Your task to perform on an android device: Add macbook pro 13 inch to the cart on costco.com Image 0: 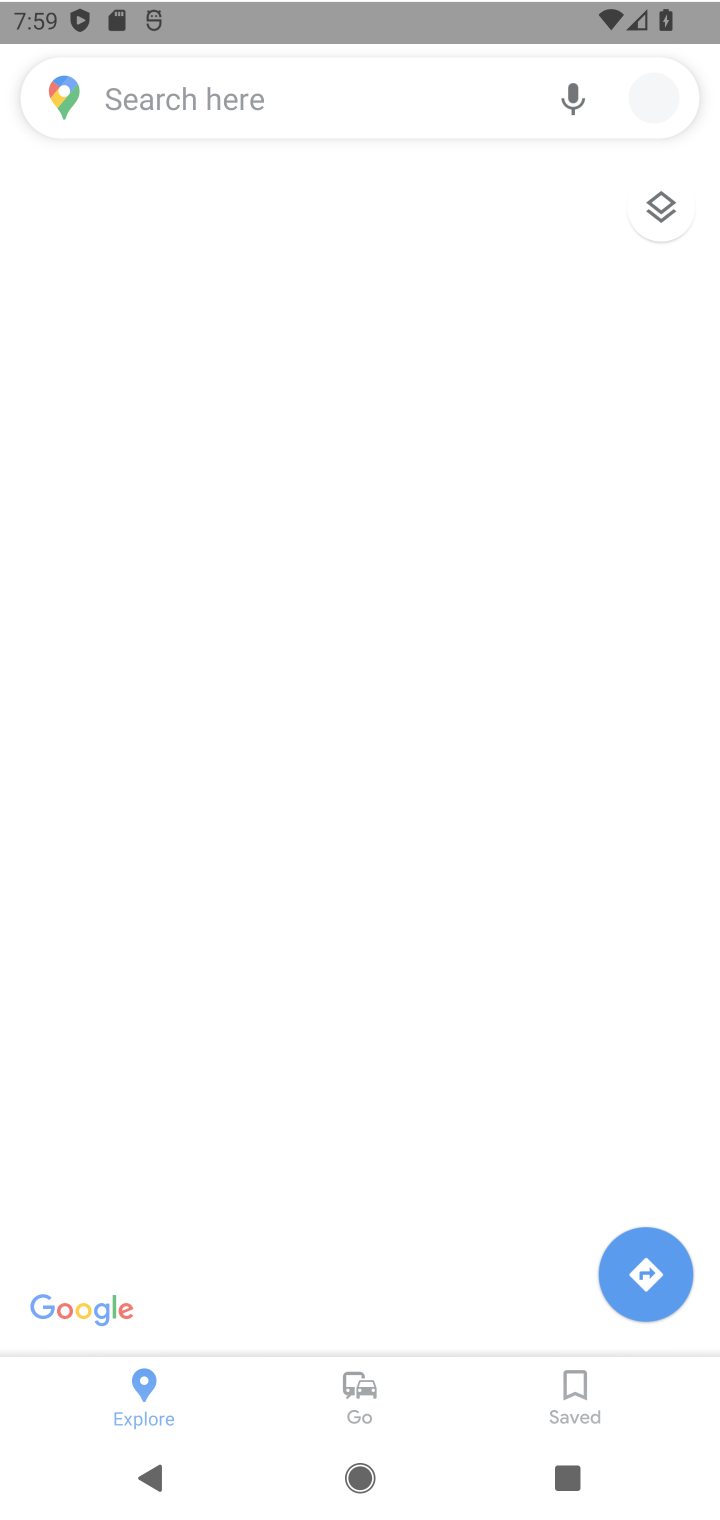
Step 0: press home button
Your task to perform on an android device: Add macbook pro 13 inch to the cart on costco.com Image 1: 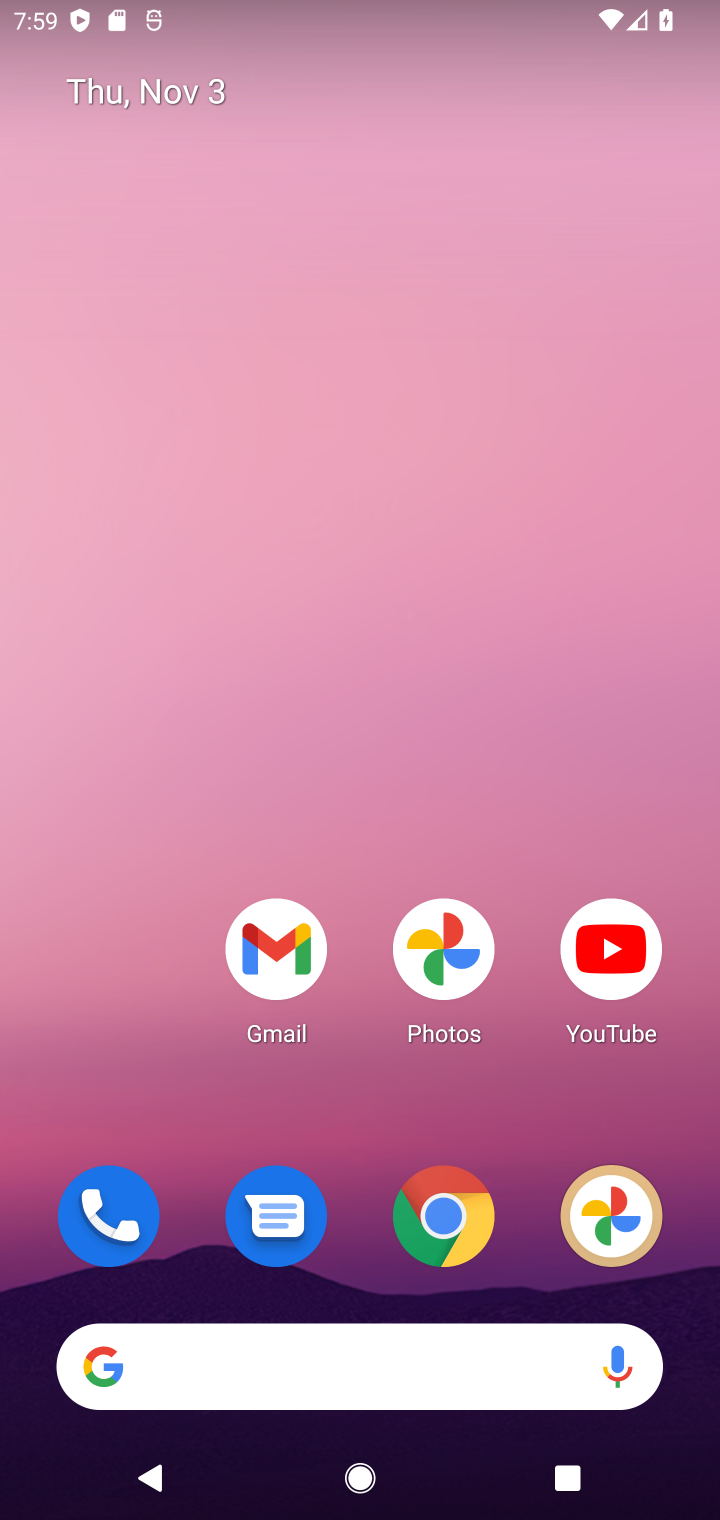
Step 1: click (445, 1234)
Your task to perform on an android device: Add macbook pro 13 inch to the cart on costco.com Image 2: 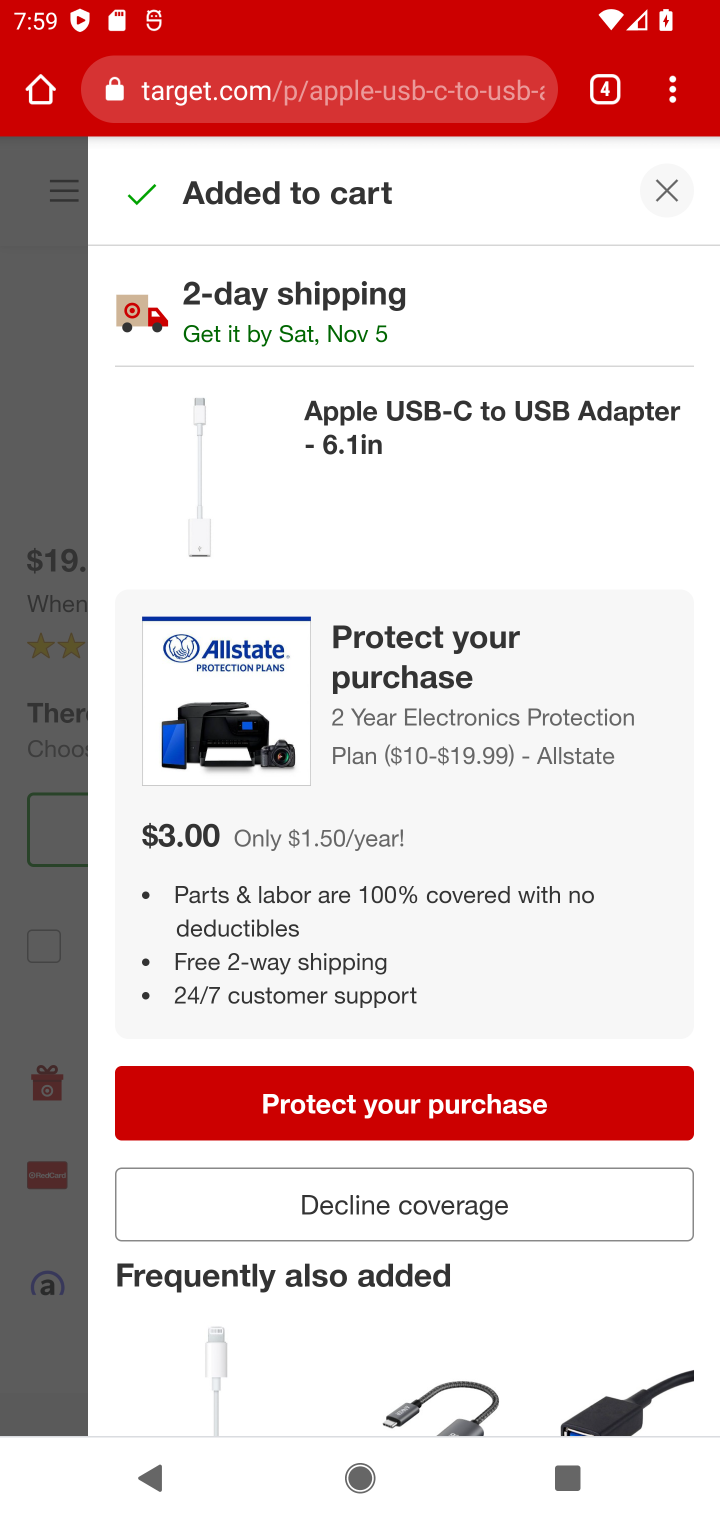
Step 2: click (602, 85)
Your task to perform on an android device: Add macbook pro 13 inch to the cart on costco.com Image 3: 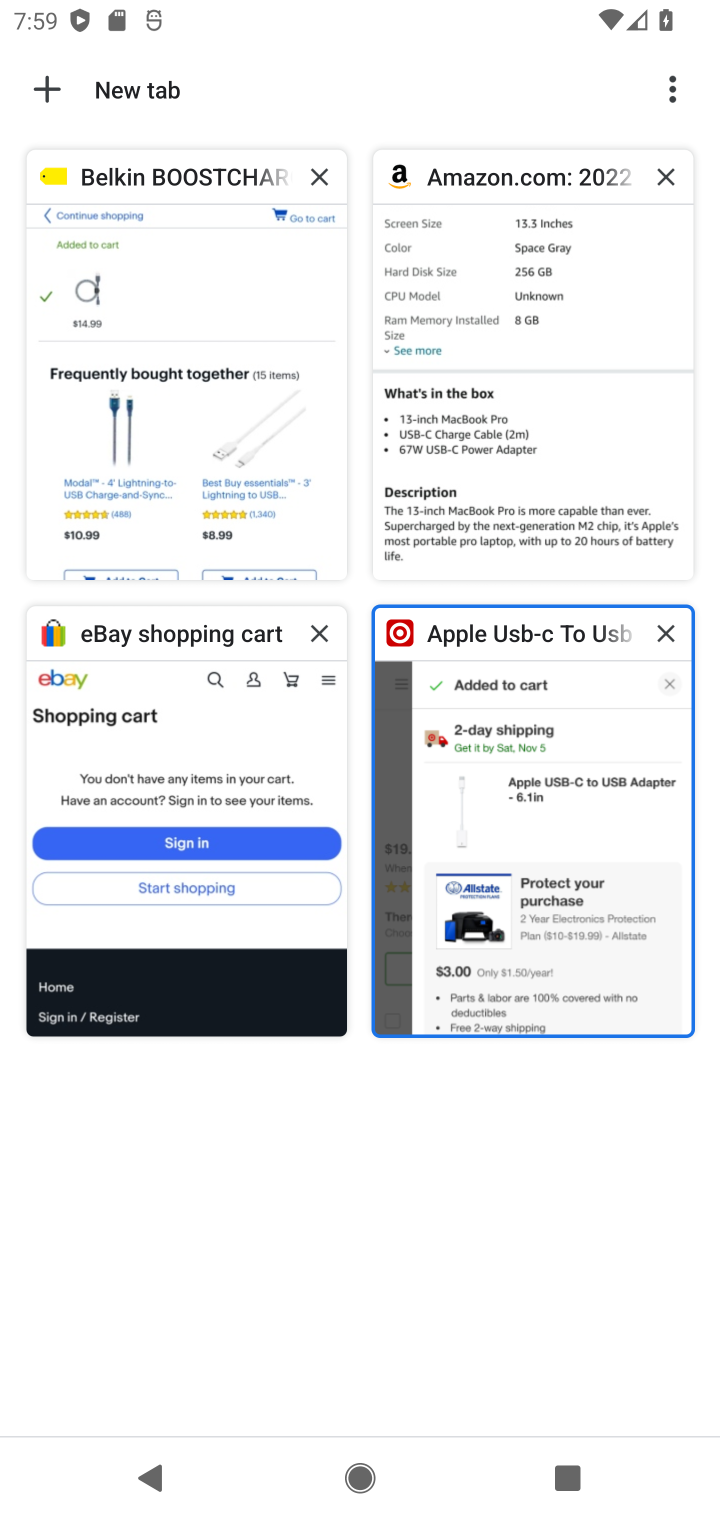
Step 3: click (46, 93)
Your task to perform on an android device: Add macbook pro 13 inch to the cart on costco.com Image 4: 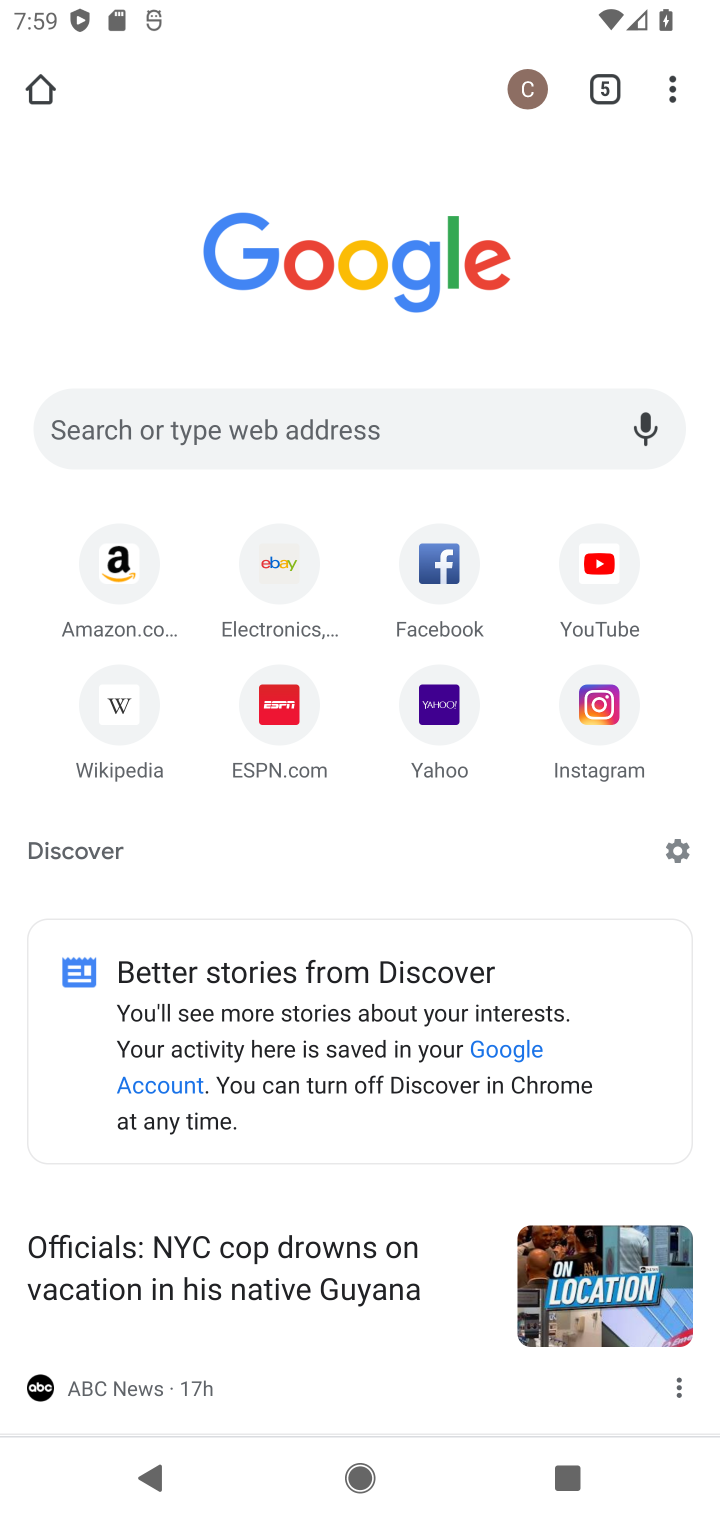
Step 4: click (186, 410)
Your task to perform on an android device: Add macbook pro 13 inch to the cart on costco.com Image 5: 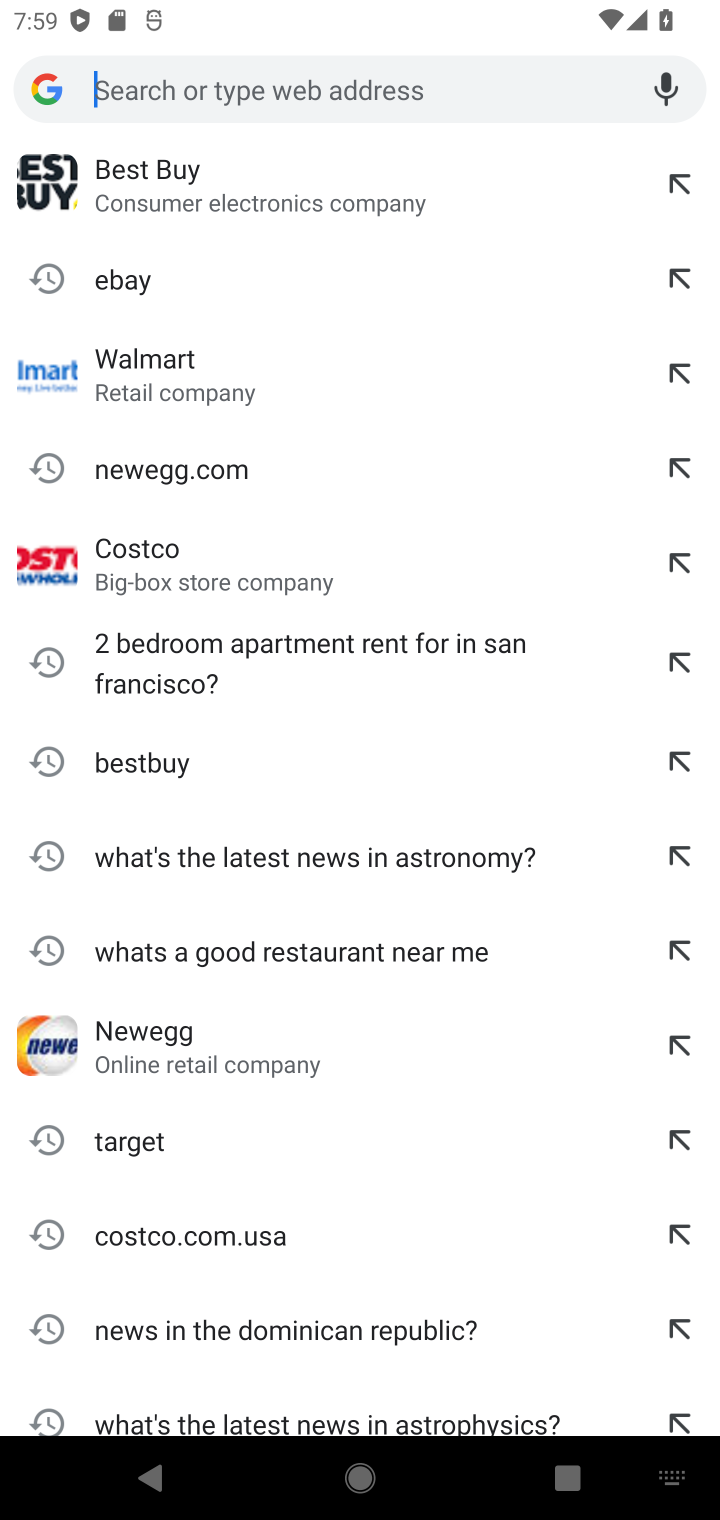
Step 5: type "costco.com"
Your task to perform on an android device: Add macbook pro 13 inch to the cart on costco.com Image 6: 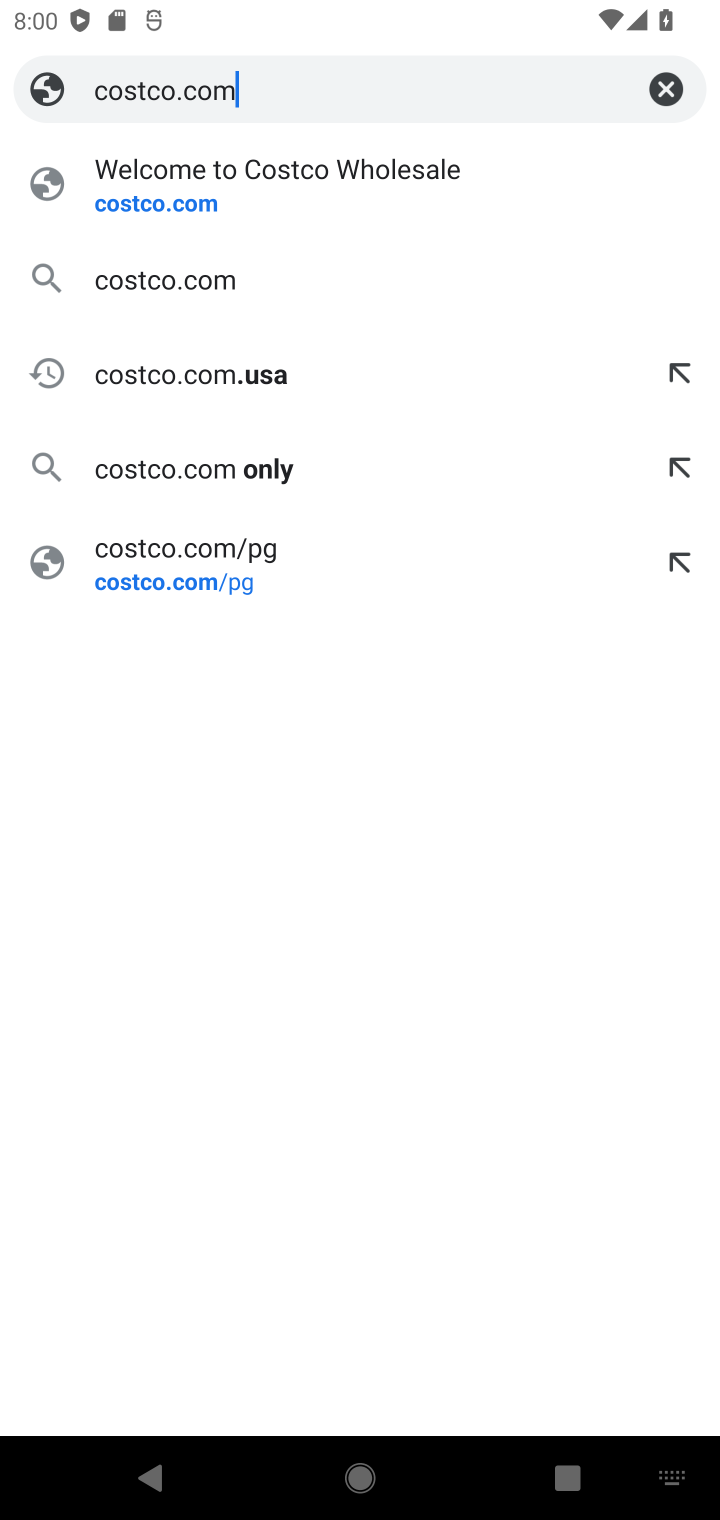
Step 6: click (156, 210)
Your task to perform on an android device: Add macbook pro 13 inch to the cart on costco.com Image 7: 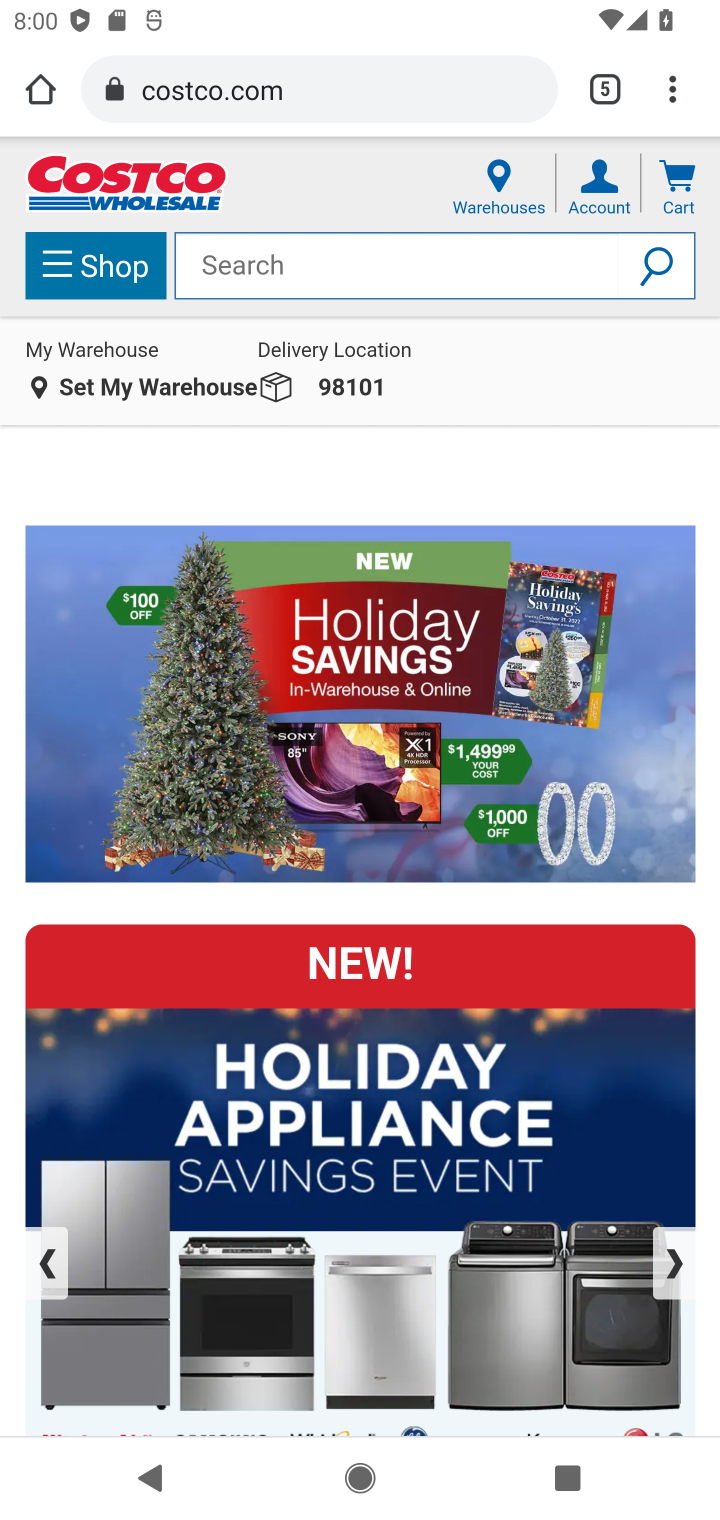
Step 7: click (336, 266)
Your task to perform on an android device: Add macbook pro 13 inch to the cart on costco.com Image 8: 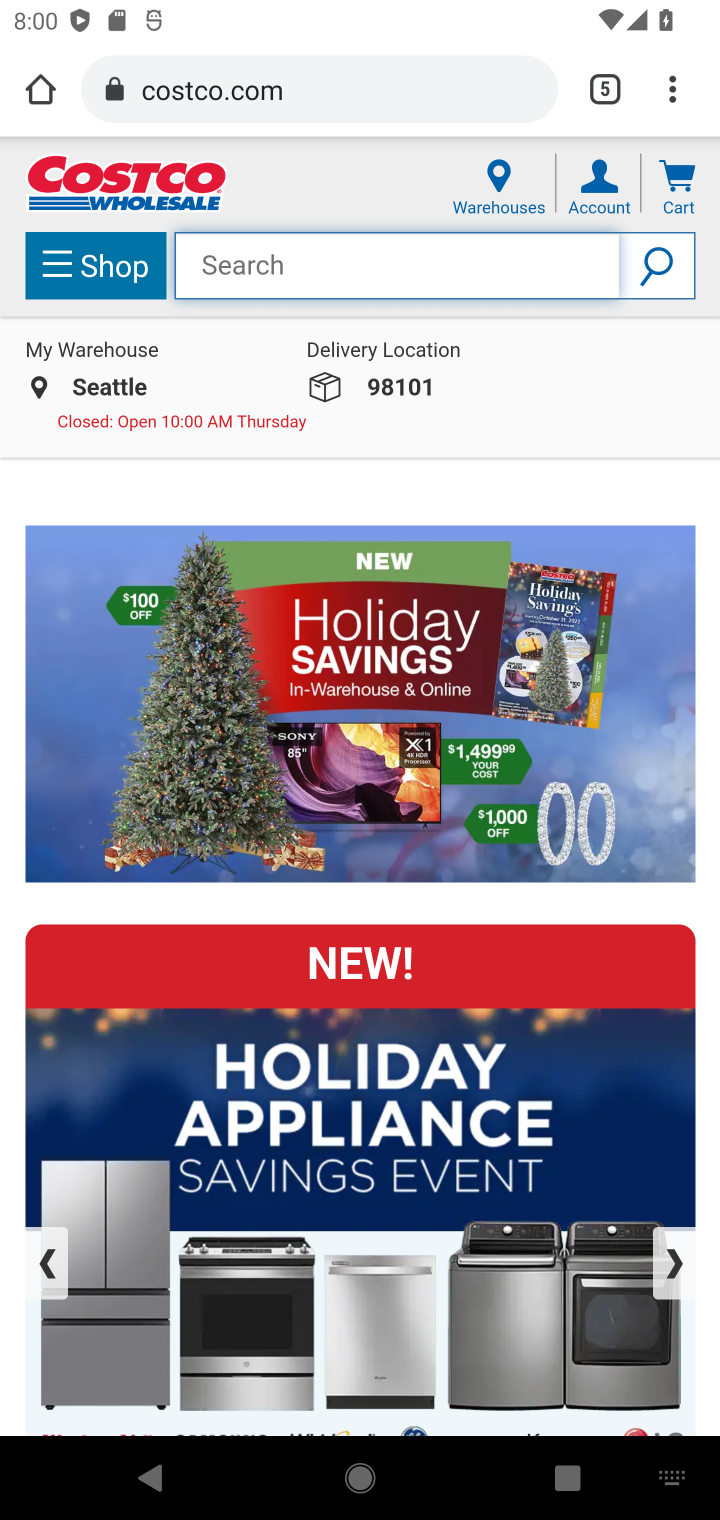
Step 8: type "macbook pro 13 inch "
Your task to perform on an android device: Add macbook pro 13 inch to the cart on costco.com Image 9: 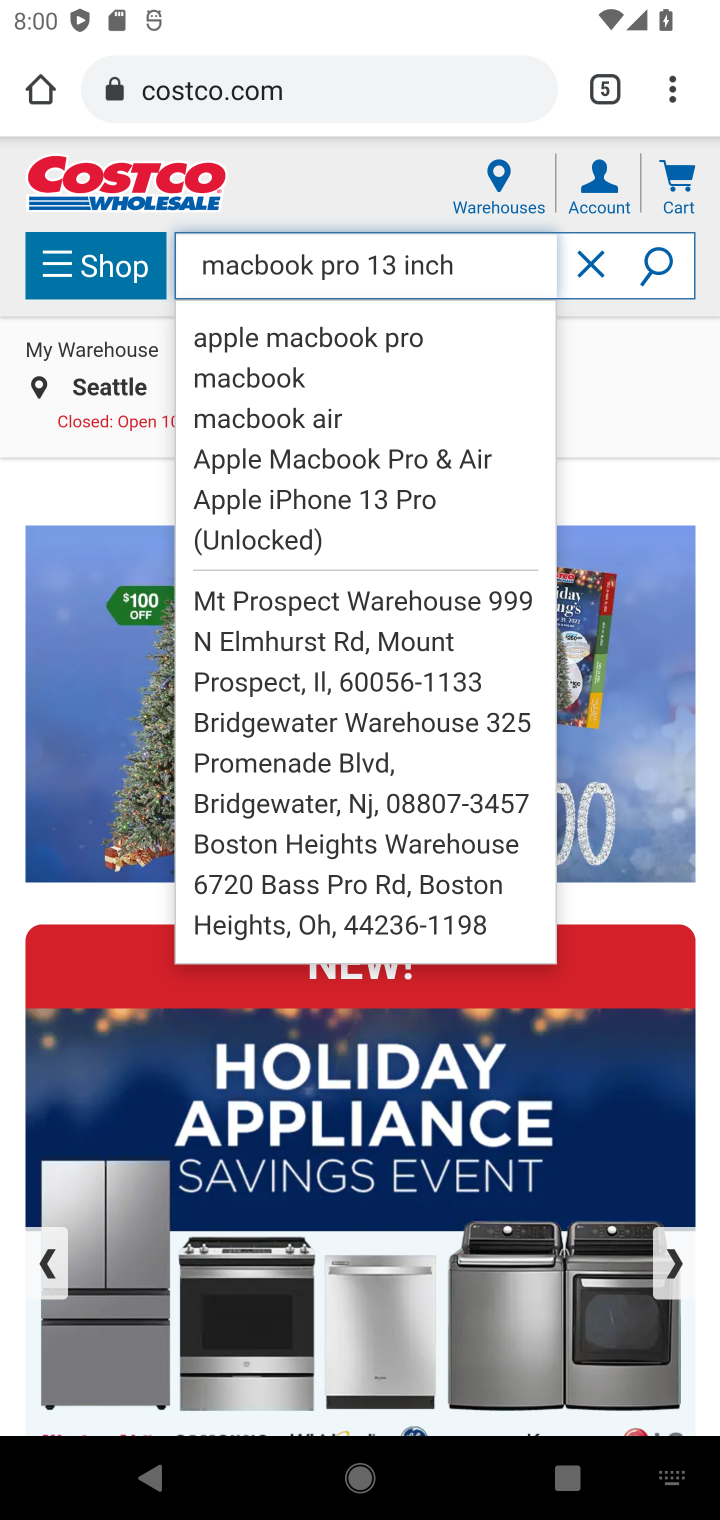
Step 9: press enter
Your task to perform on an android device: Add macbook pro 13 inch to the cart on costco.com Image 10: 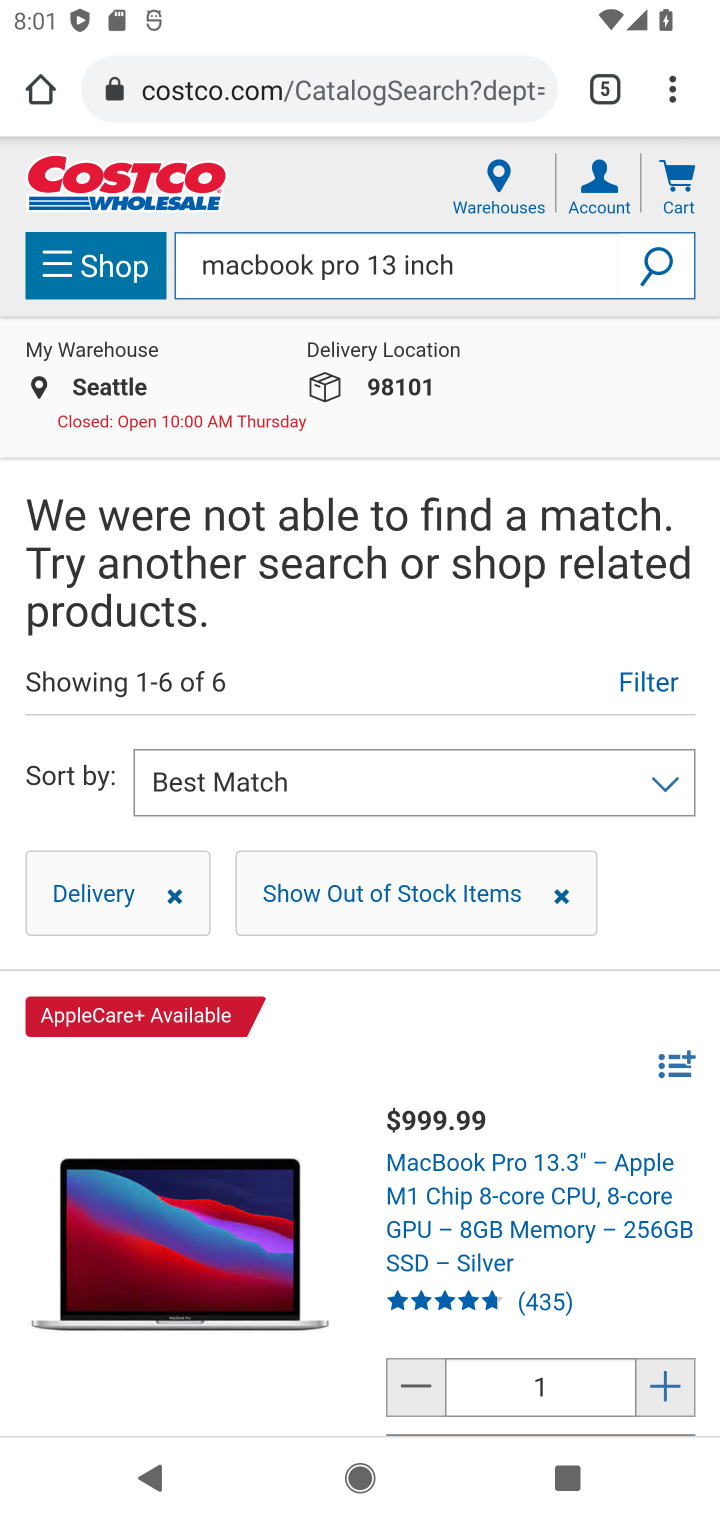
Step 10: task complete